Your task to perform on an android device: Go to settings Image 0: 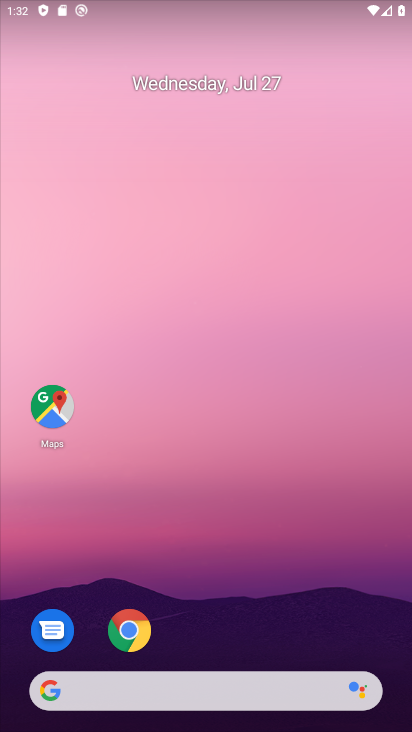
Step 0: drag from (378, 640) to (366, 135)
Your task to perform on an android device: Go to settings Image 1: 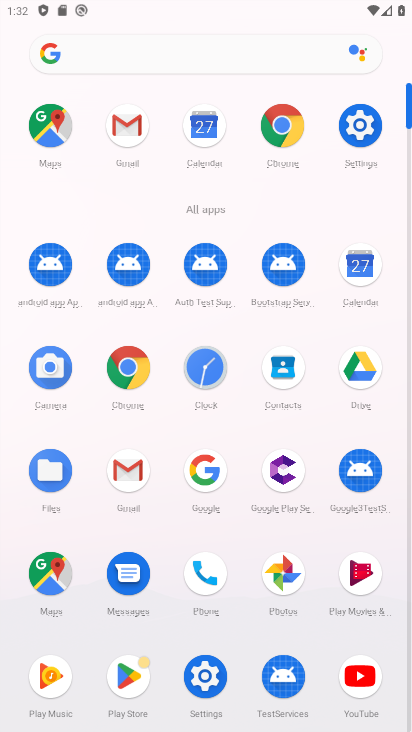
Step 1: click (207, 676)
Your task to perform on an android device: Go to settings Image 2: 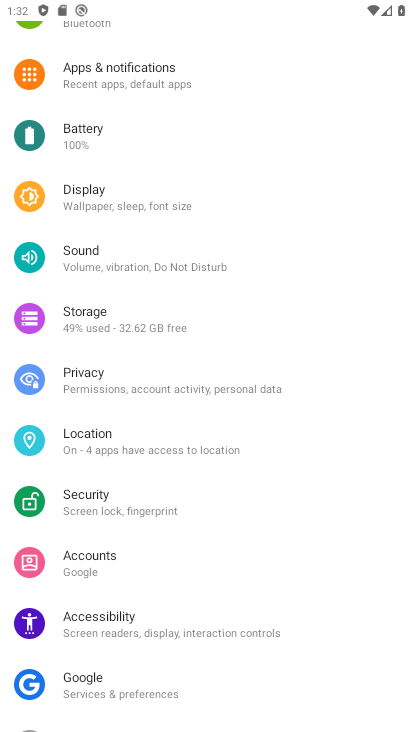
Step 2: task complete